Your task to perform on an android device: Open calendar and show me the second week of next month Image 0: 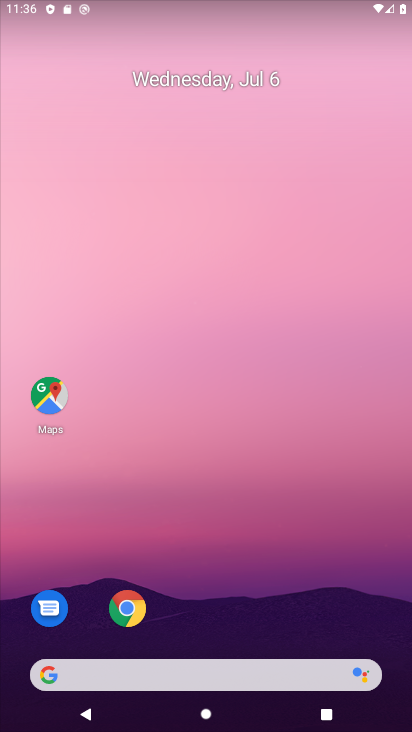
Step 0: drag from (258, 645) to (283, 112)
Your task to perform on an android device: Open calendar and show me the second week of next month Image 1: 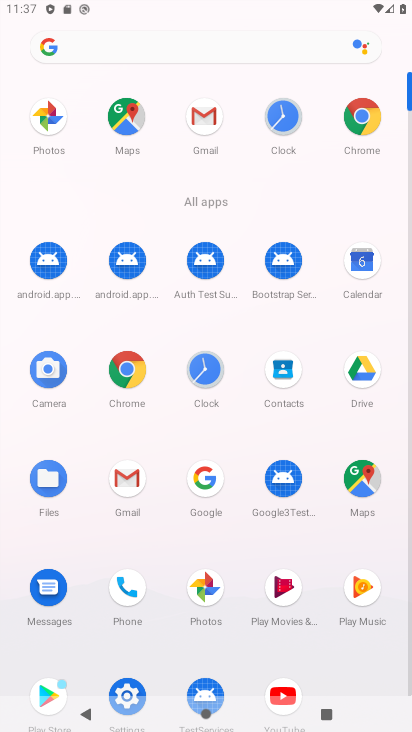
Step 1: click (349, 258)
Your task to perform on an android device: Open calendar and show me the second week of next month Image 2: 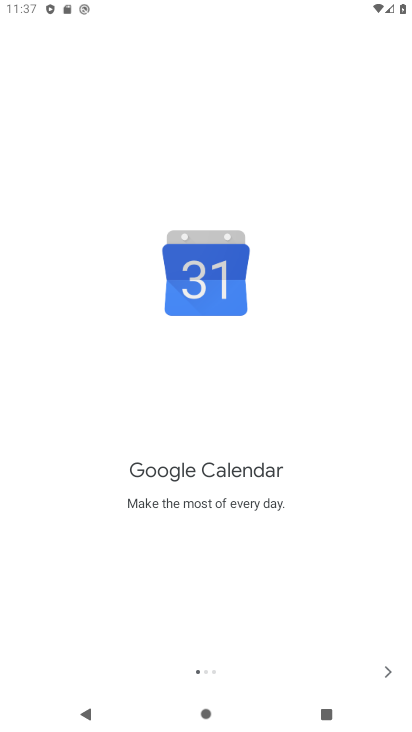
Step 2: click (380, 678)
Your task to perform on an android device: Open calendar and show me the second week of next month Image 3: 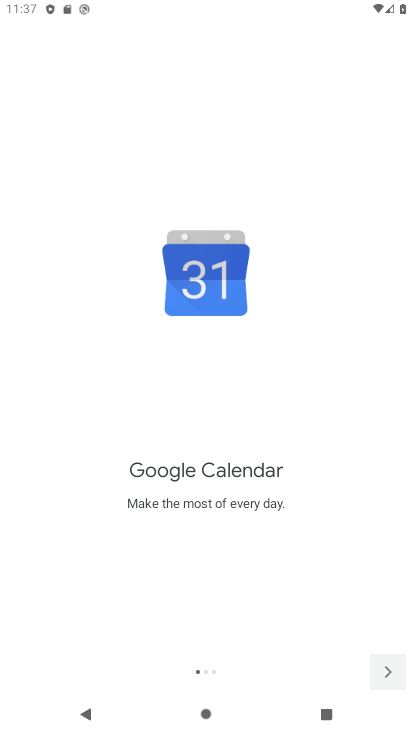
Step 3: click (380, 678)
Your task to perform on an android device: Open calendar and show me the second week of next month Image 4: 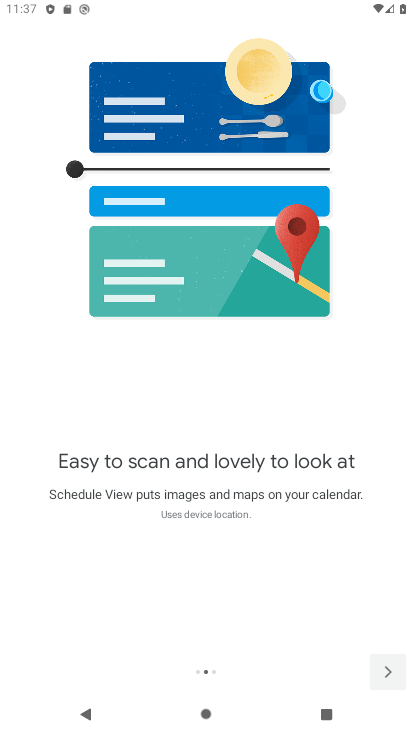
Step 4: click (380, 678)
Your task to perform on an android device: Open calendar and show me the second week of next month Image 5: 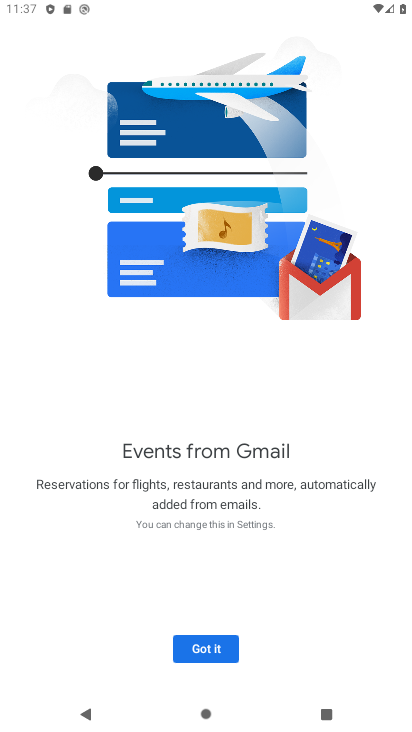
Step 5: click (207, 647)
Your task to perform on an android device: Open calendar and show me the second week of next month Image 6: 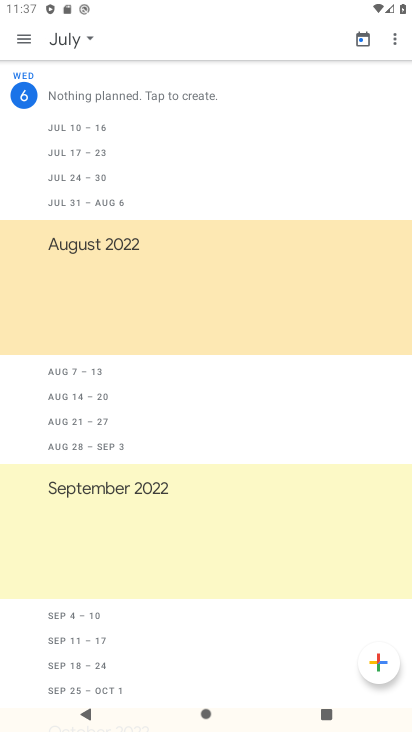
Step 6: drag from (185, 638) to (198, 483)
Your task to perform on an android device: Open calendar and show me the second week of next month Image 7: 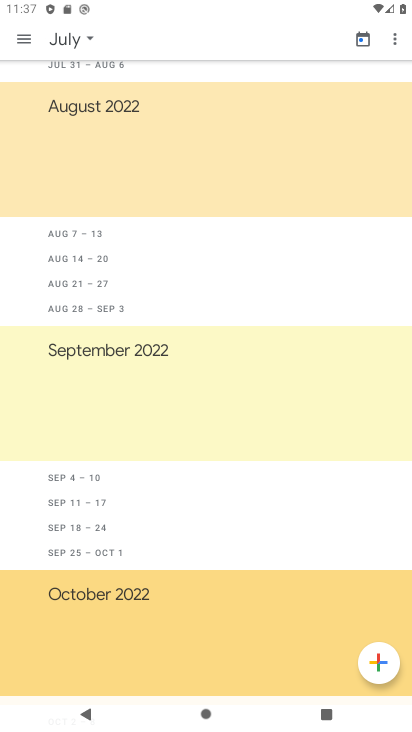
Step 7: drag from (230, 271) to (227, 719)
Your task to perform on an android device: Open calendar and show me the second week of next month Image 8: 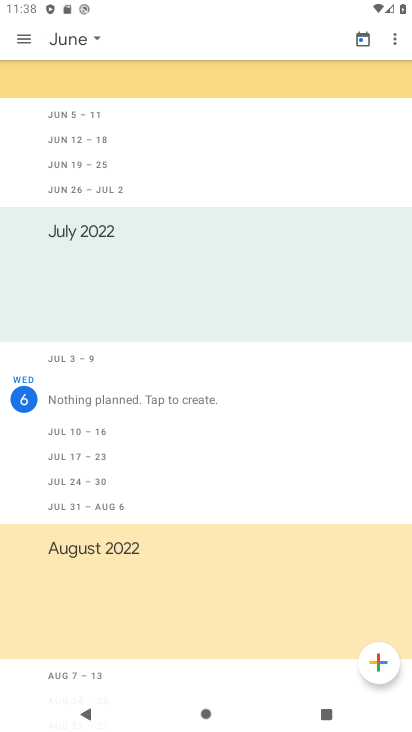
Step 8: drag from (253, 97) to (307, 689)
Your task to perform on an android device: Open calendar and show me the second week of next month Image 9: 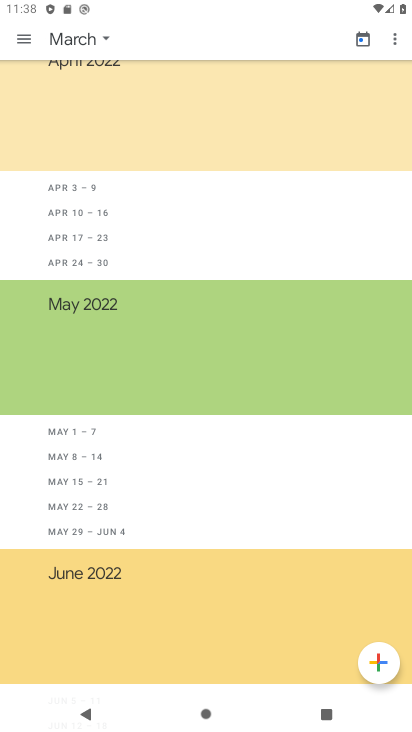
Step 9: click (111, 45)
Your task to perform on an android device: Open calendar and show me the second week of next month Image 10: 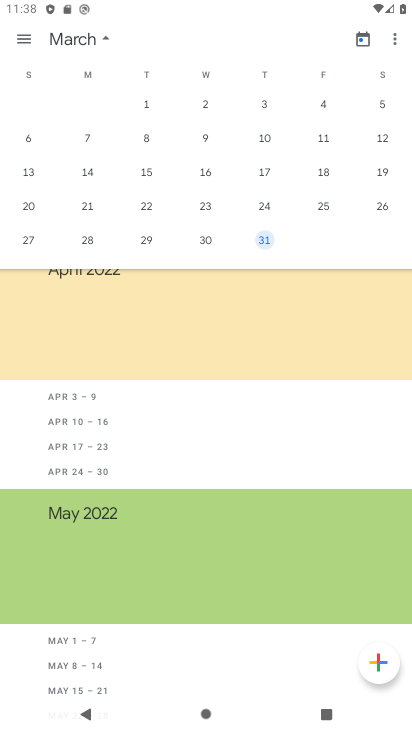
Step 10: drag from (344, 174) to (54, 277)
Your task to perform on an android device: Open calendar and show me the second week of next month Image 11: 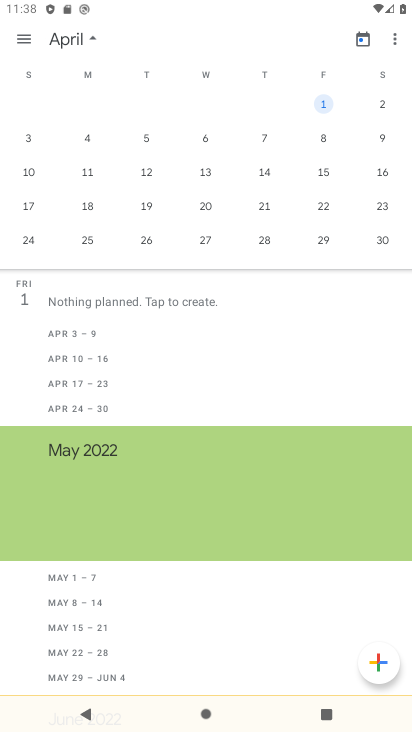
Step 11: drag from (294, 218) to (2, 460)
Your task to perform on an android device: Open calendar and show me the second week of next month Image 12: 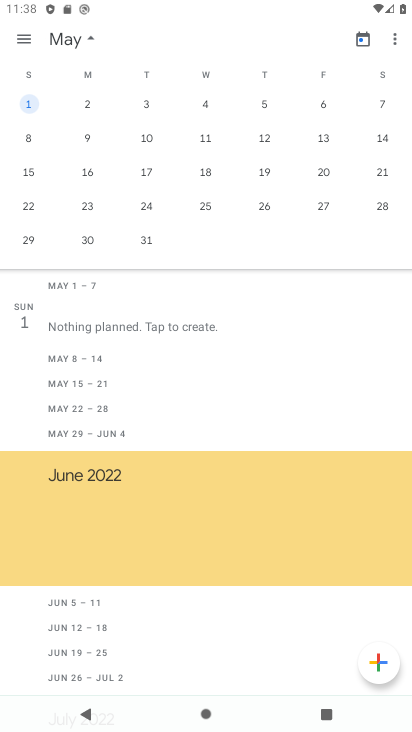
Step 12: drag from (271, 230) to (0, 539)
Your task to perform on an android device: Open calendar and show me the second week of next month Image 13: 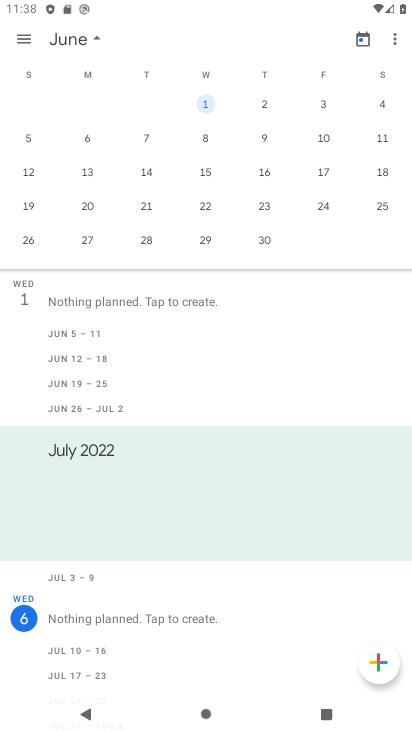
Step 13: drag from (303, 214) to (10, 654)
Your task to perform on an android device: Open calendar and show me the second week of next month Image 14: 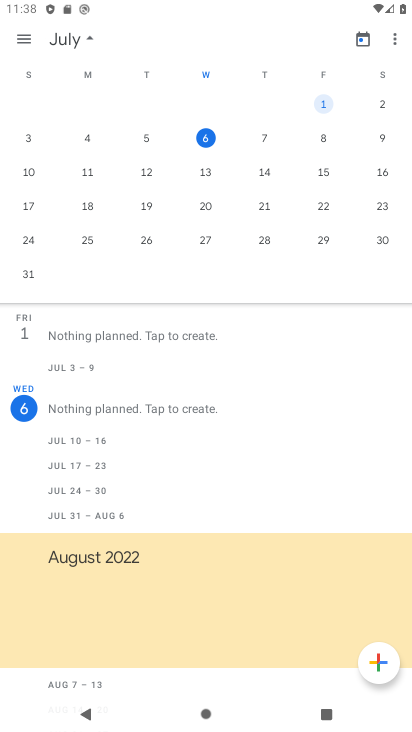
Step 14: drag from (350, 229) to (16, 612)
Your task to perform on an android device: Open calendar and show me the second week of next month Image 15: 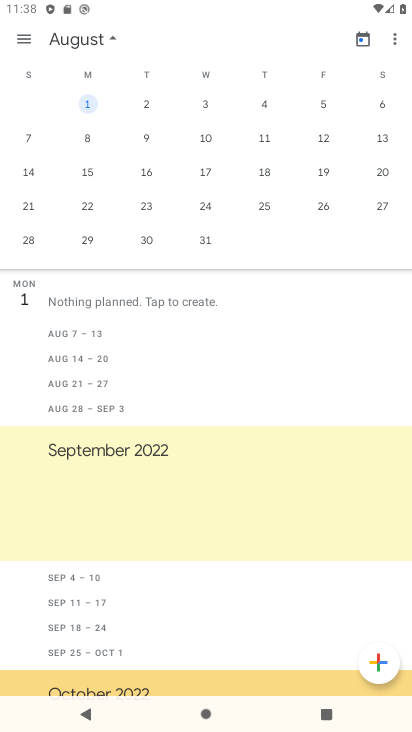
Step 15: click (97, 132)
Your task to perform on an android device: Open calendar and show me the second week of next month Image 16: 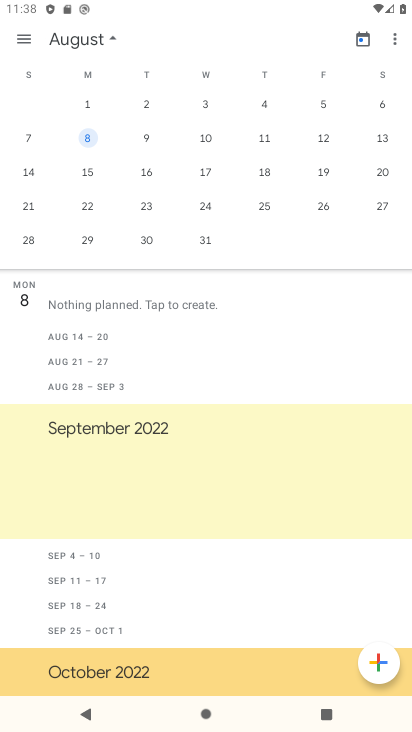
Step 16: task complete